Your task to perform on an android device: turn pop-ups on in chrome Image 0: 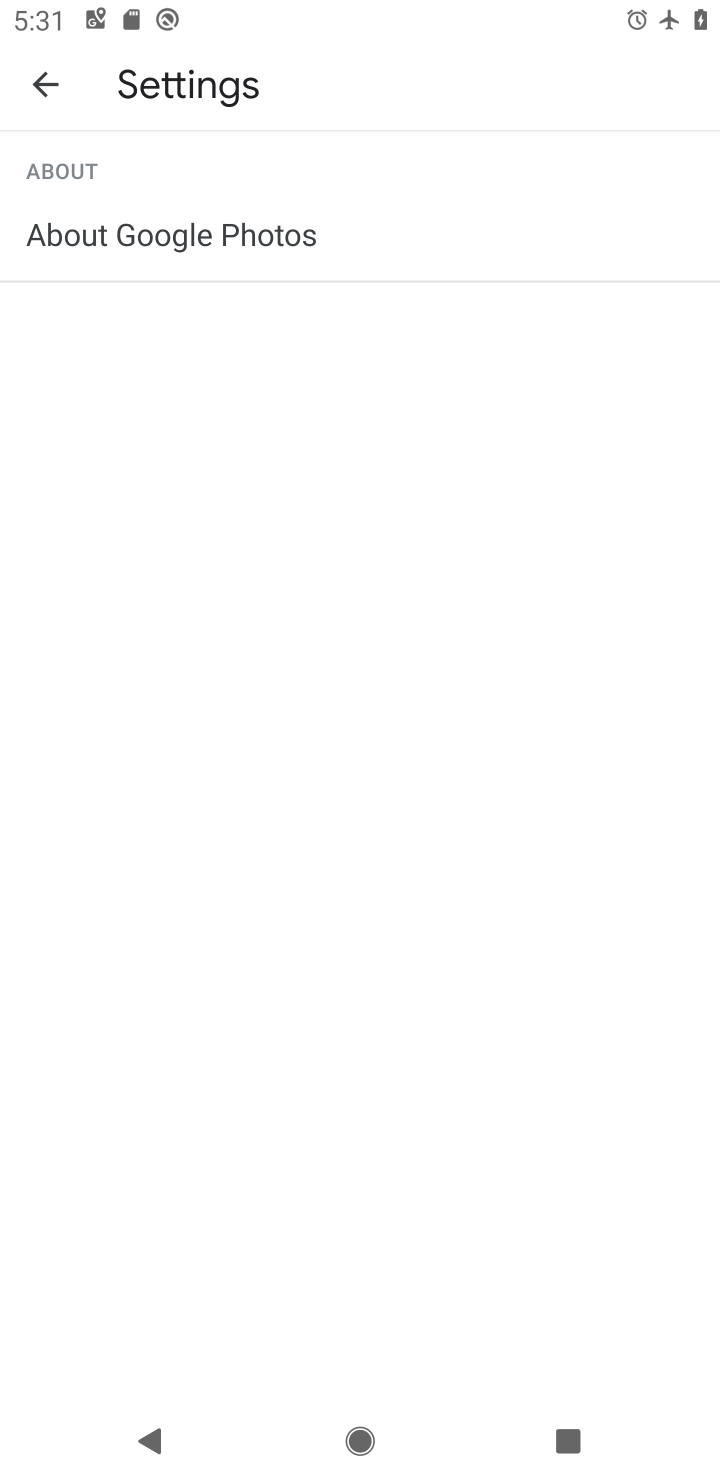
Step 0: press home button
Your task to perform on an android device: turn pop-ups on in chrome Image 1: 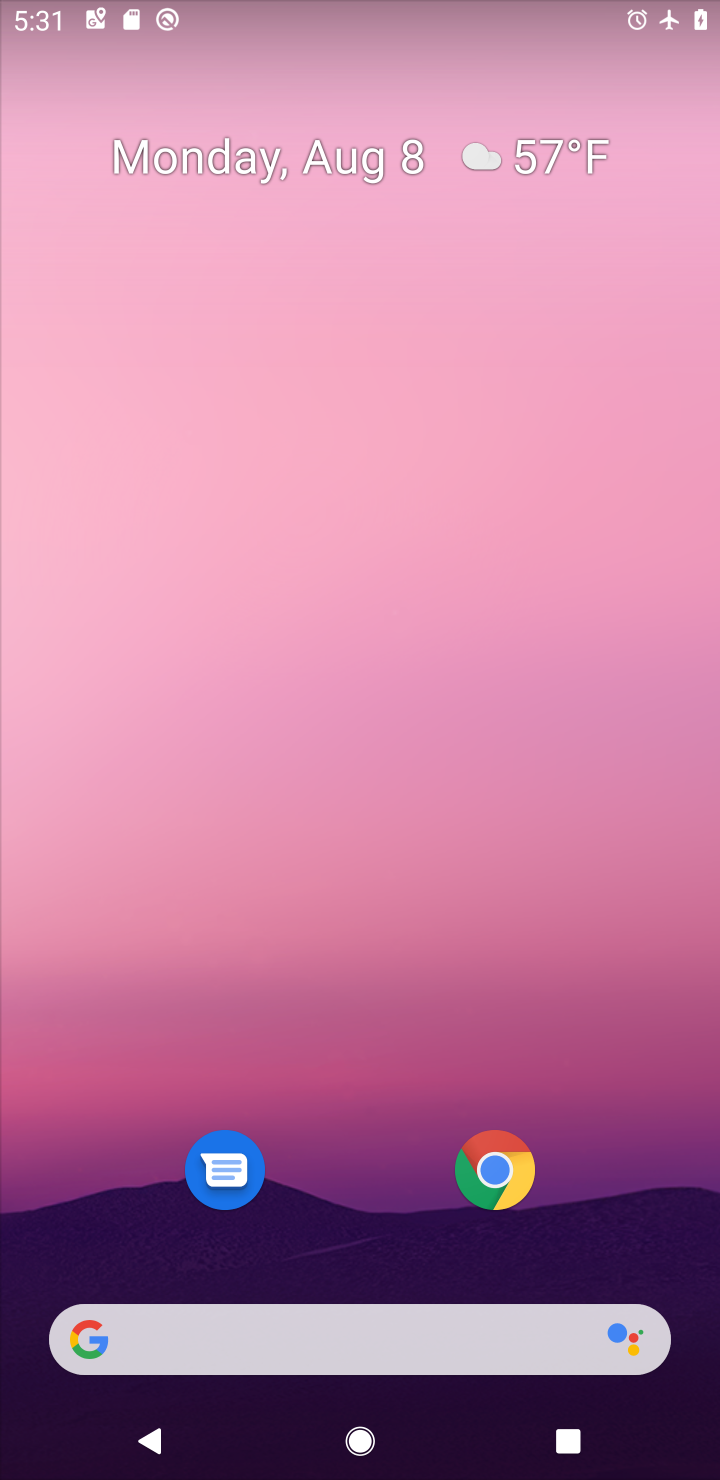
Step 1: click (473, 1179)
Your task to perform on an android device: turn pop-ups on in chrome Image 2: 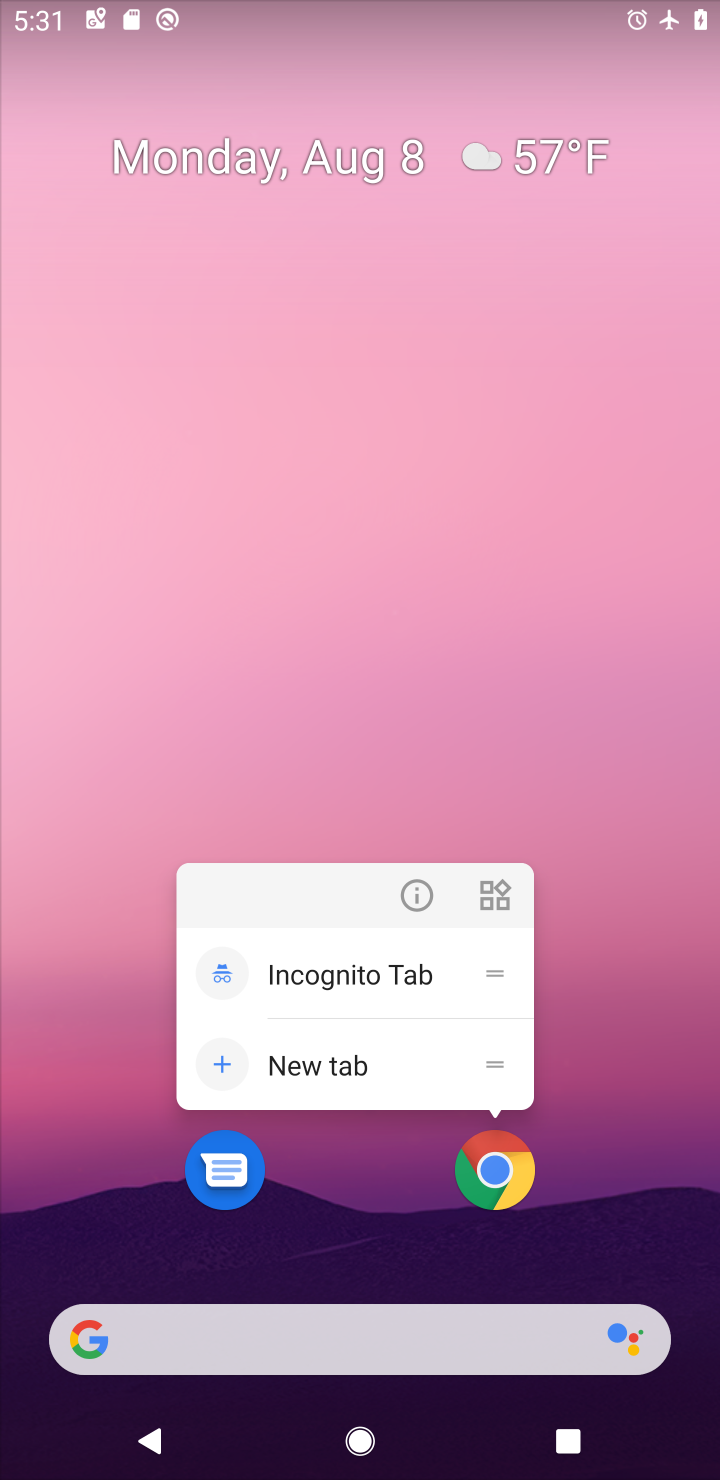
Step 2: click (519, 1155)
Your task to perform on an android device: turn pop-ups on in chrome Image 3: 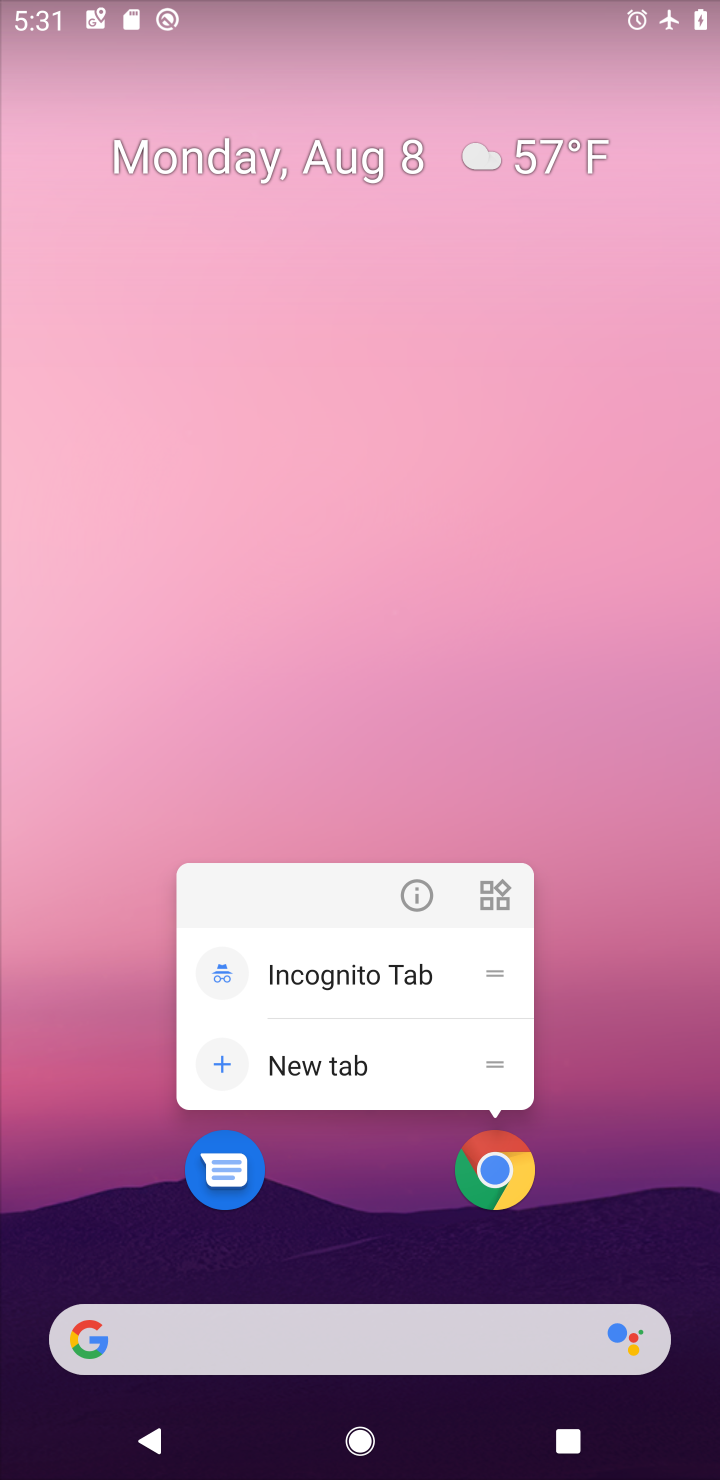
Step 3: click (517, 1152)
Your task to perform on an android device: turn pop-ups on in chrome Image 4: 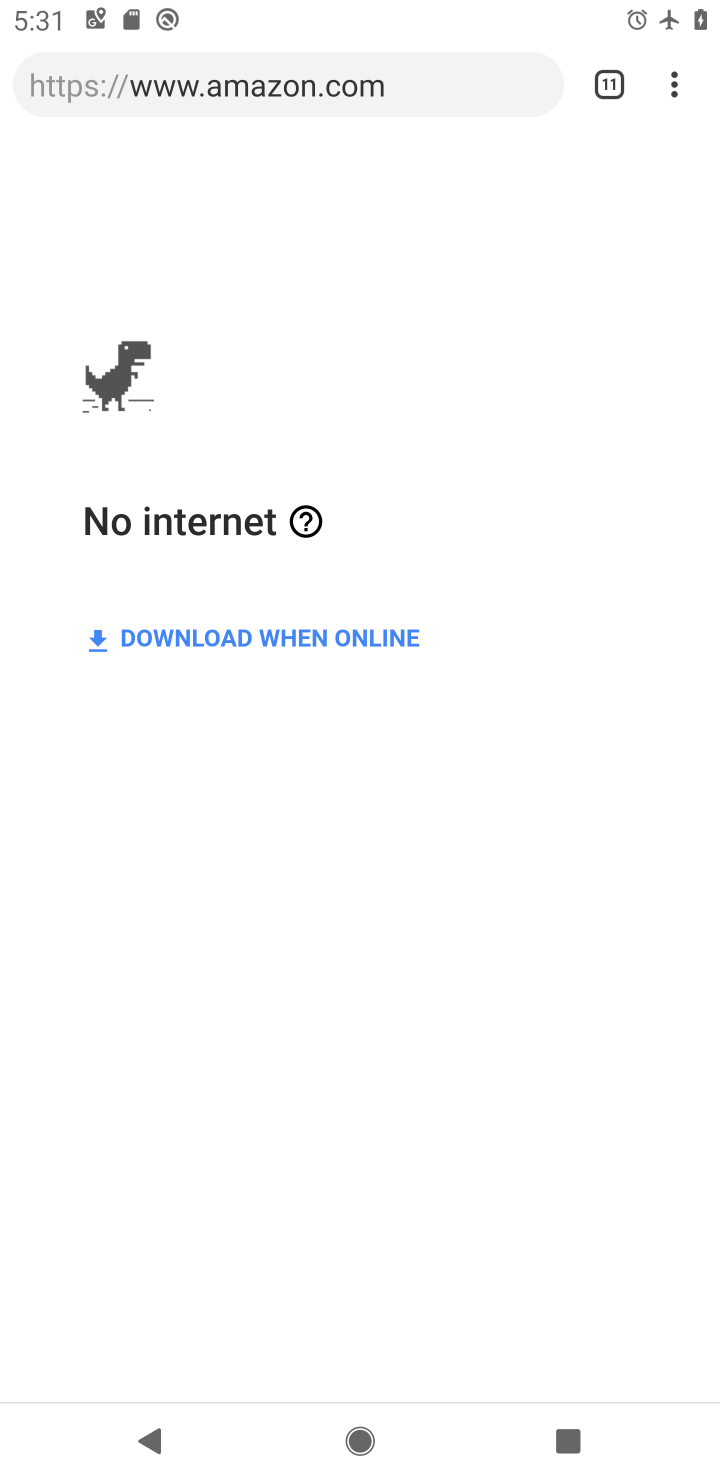
Step 4: click (662, 62)
Your task to perform on an android device: turn pop-ups on in chrome Image 5: 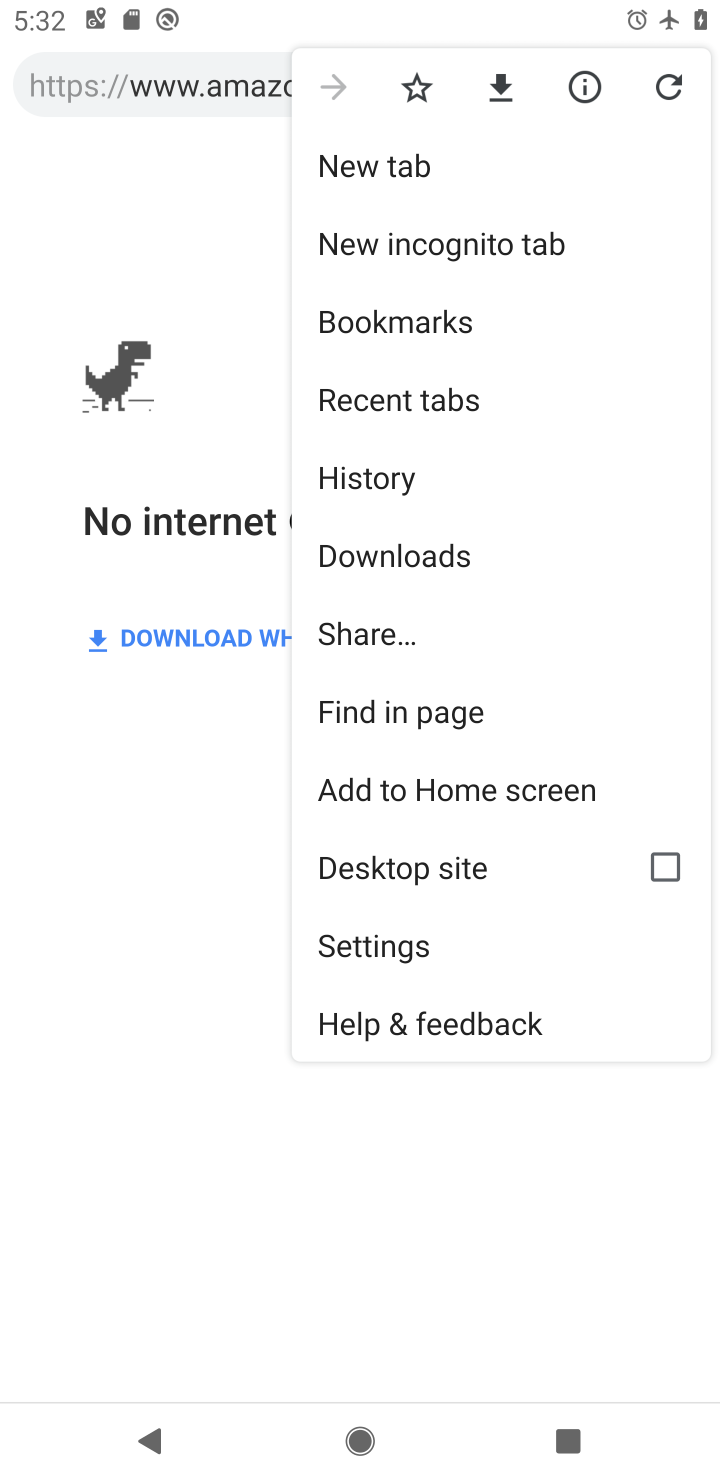
Step 5: click (408, 955)
Your task to perform on an android device: turn pop-ups on in chrome Image 6: 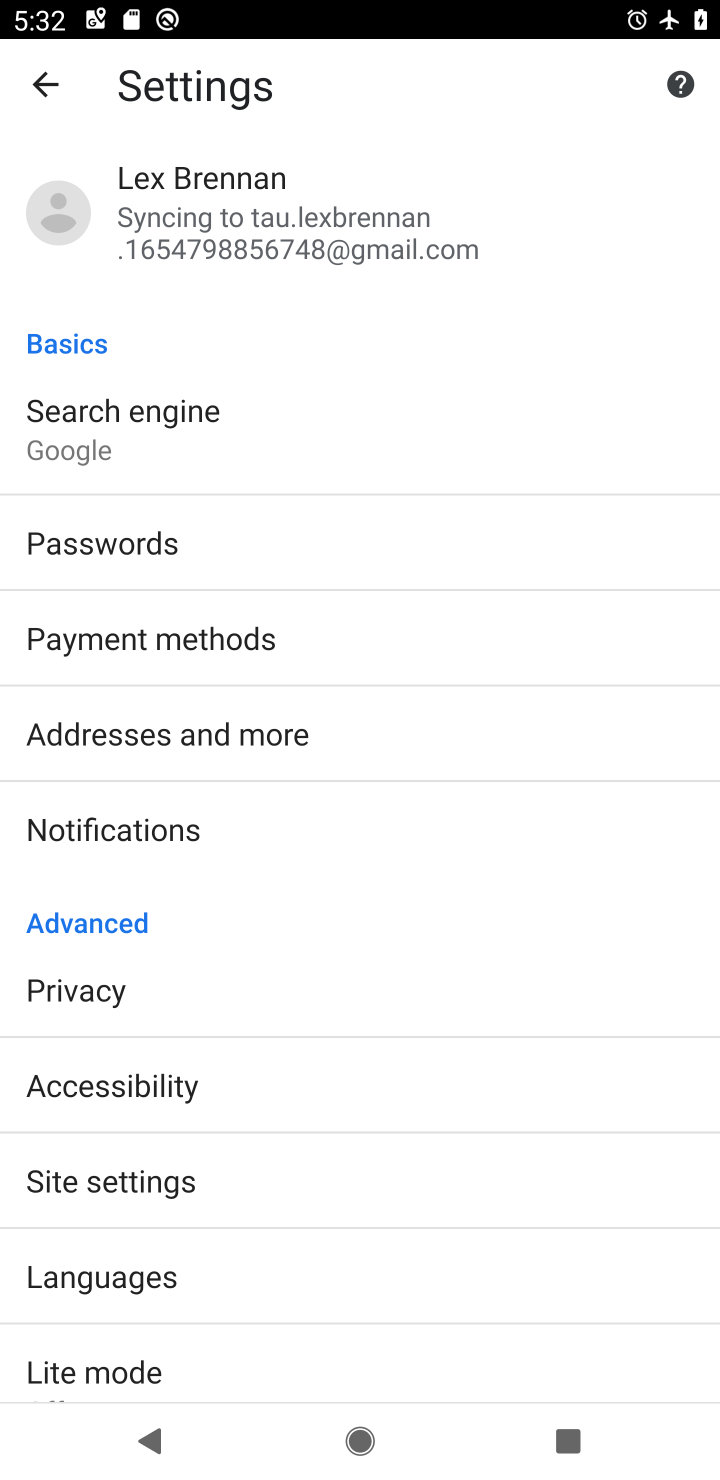
Step 6: click (185, 1161)
Your task to perform on an android device: turn pop-ups on in chrome Image 7: 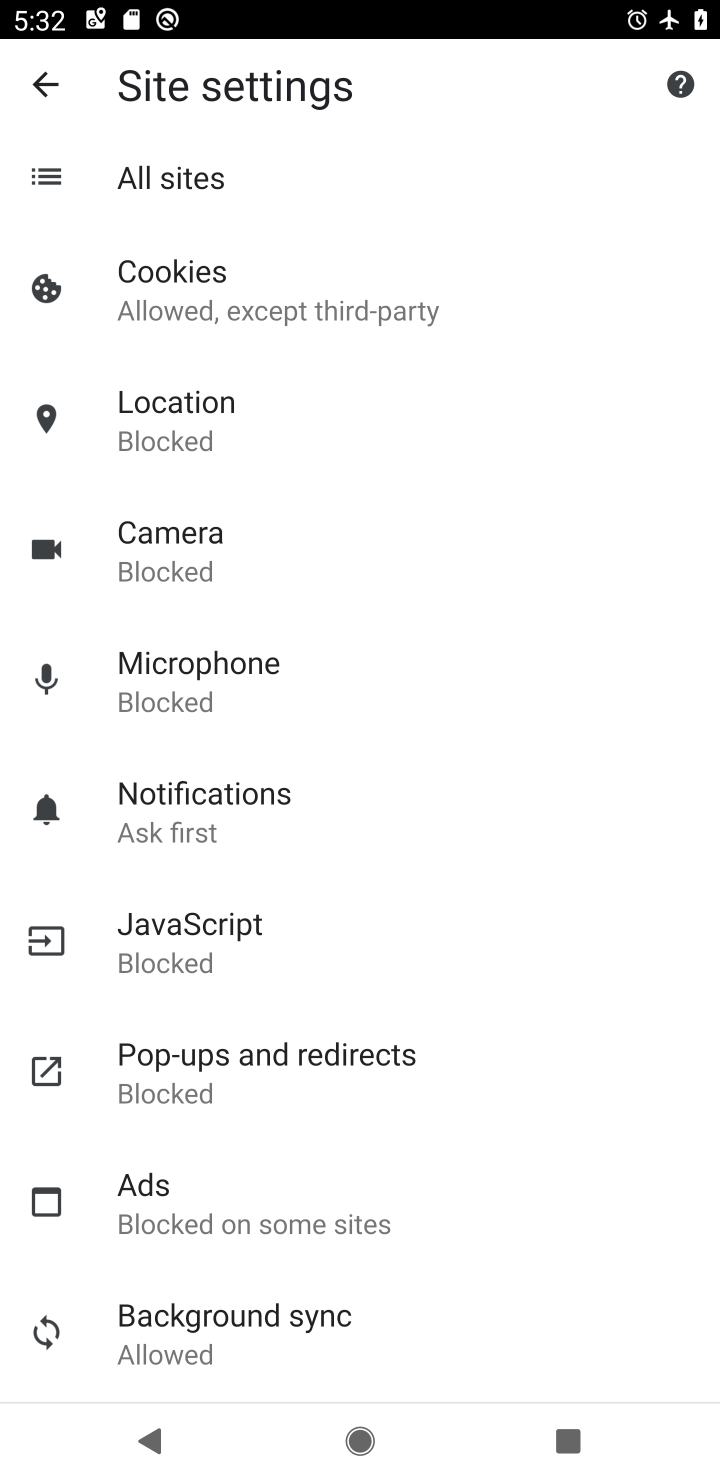
Step 7: click (328, 1054)
Your task to perform on an android device: turn pop-ups on in chrome Image 8: 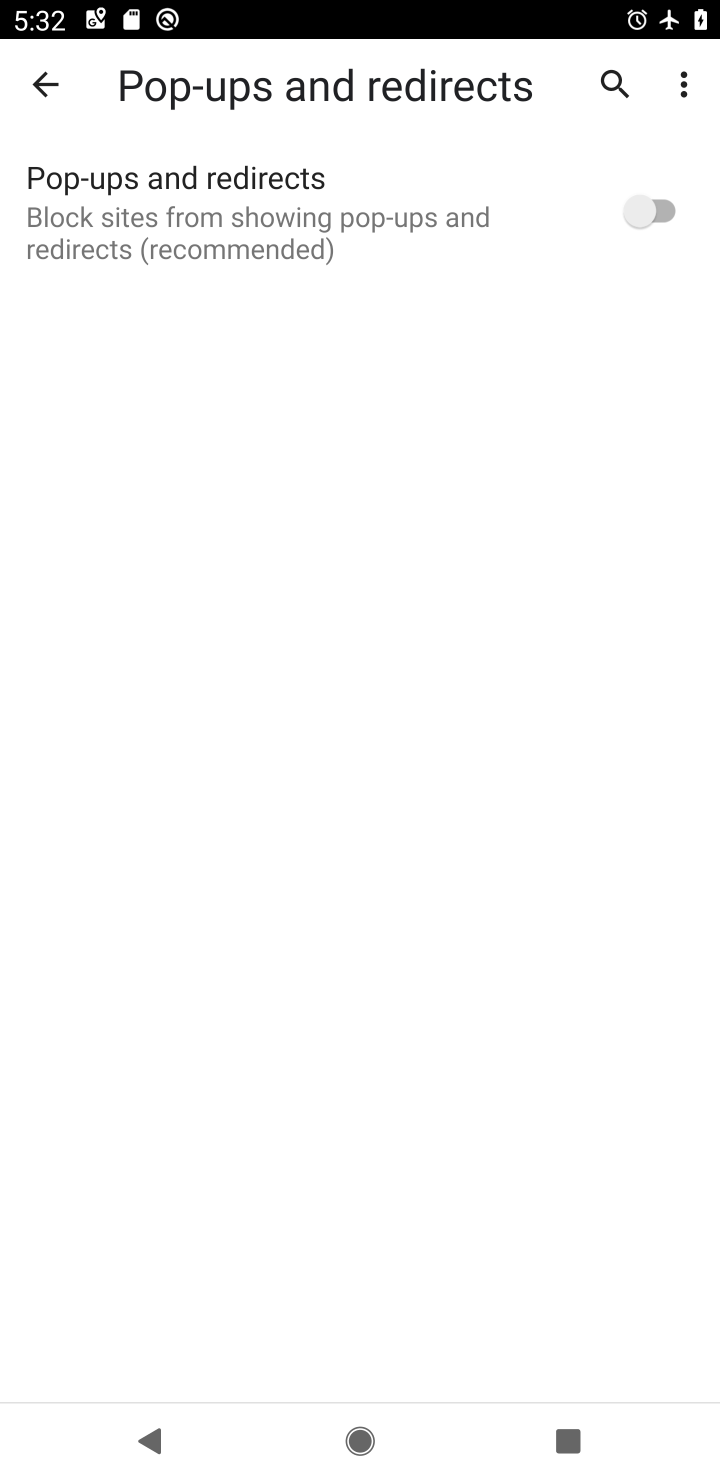
Step 8: click (666, 189)
Your task to perform on an android device: turn pop-ups on in chrome Image 9: 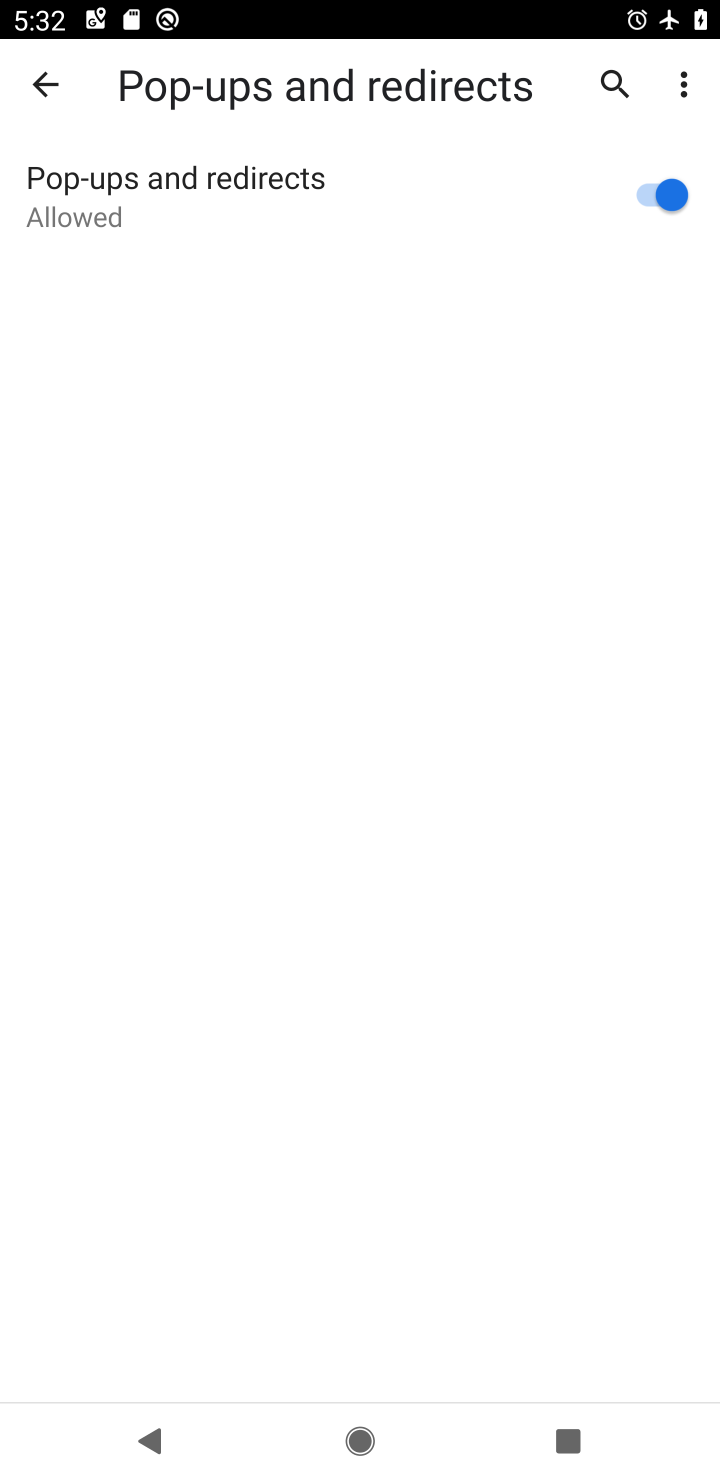
Step 9: task complete